Your task to perform on an android device: turn off wifi Image 0: 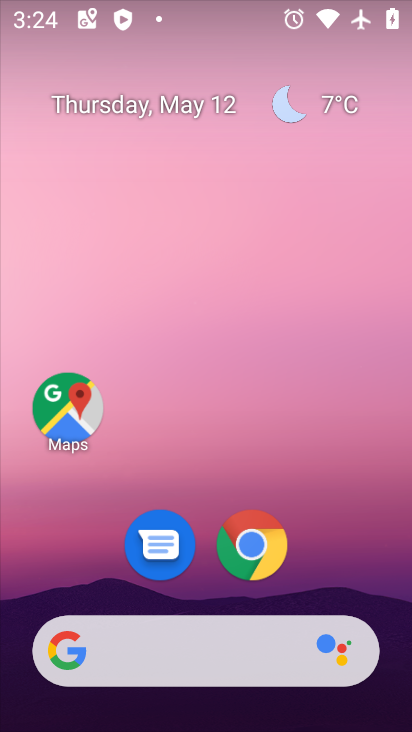
Step 0: drag from (384, 633) to (318, 146)
Your task to perform on an android device: turn off wifi Image 1: 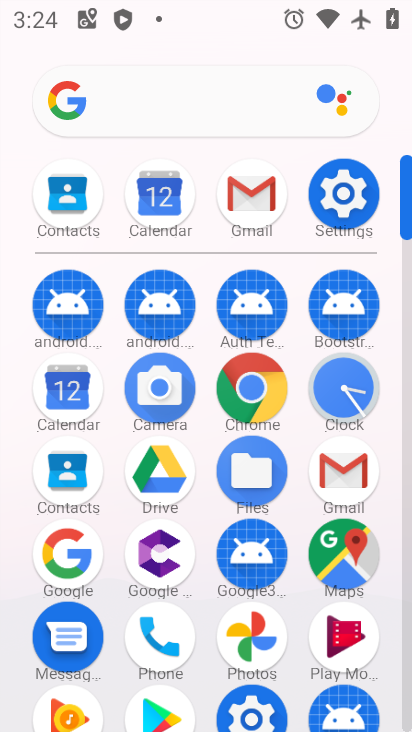
Step 1: click (406, 689)
Your task to perform on an android device: turn off wifi Image 2: 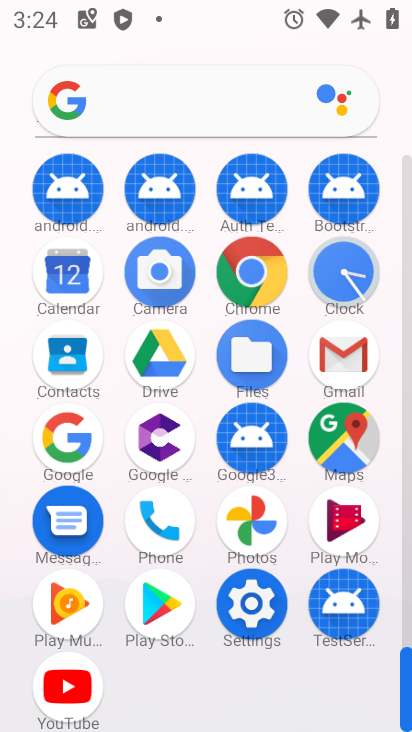
Step 2: click (248, 609)
Your task to perform on an android device: turn off wifi Image 3: 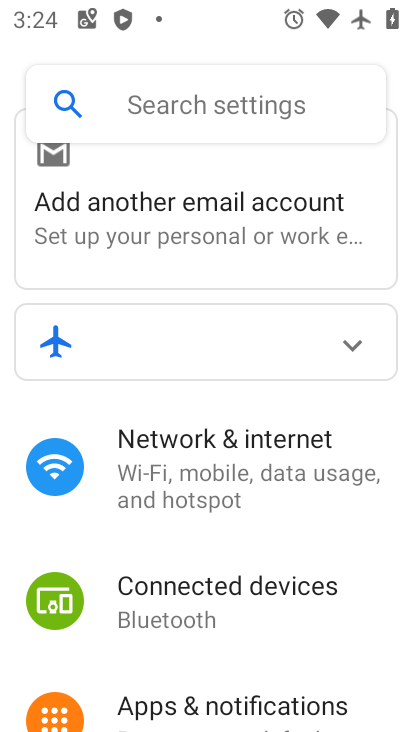
Step 3: click (201, 464)
Your task to perform on an android device: turn off wifi Image 4: 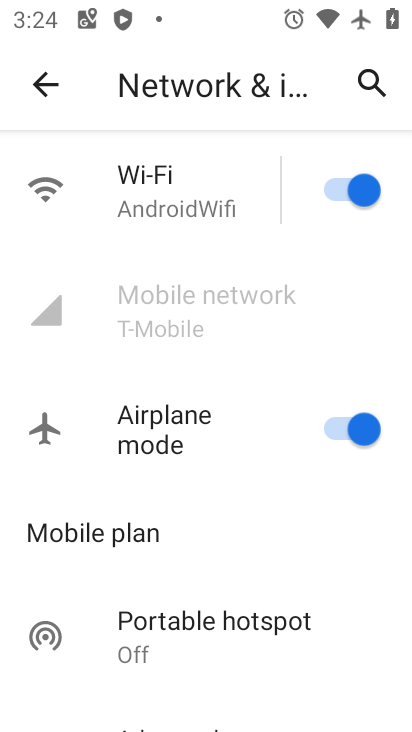
Step 4: click (328, 189)
Your task to perform on an android device: turn off wifi Image 5: 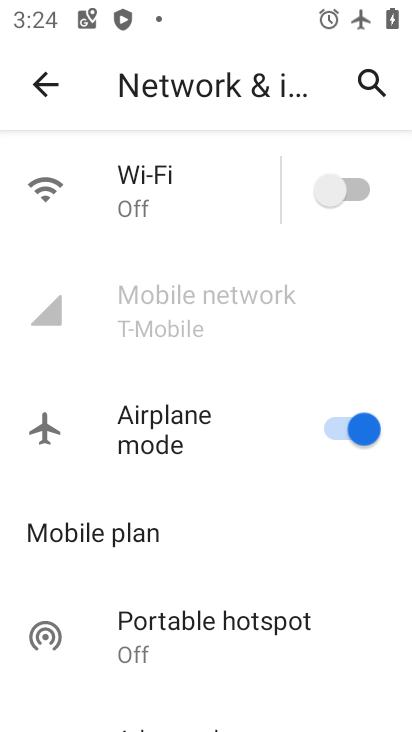
Step 5: task complete